Your task to perform on an android device: make emails show in primary in the gmail app Image 0: 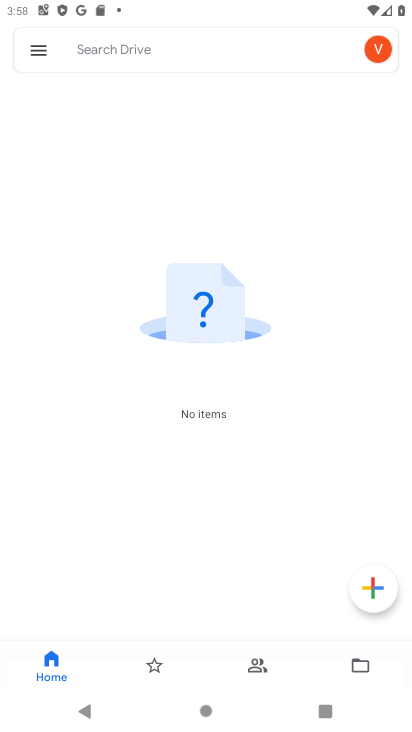
Step 0: press home button
Your task to perform on an android device: make emails show in primary in the gmail app Image 1: 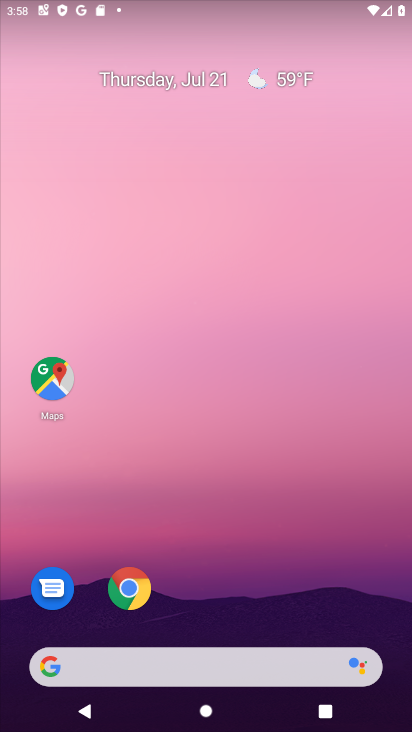
Step 1: drag from (247, 701) to (230, 189)
Your task to perform on an android device: make emails show in primary in the gmail app Image 2: 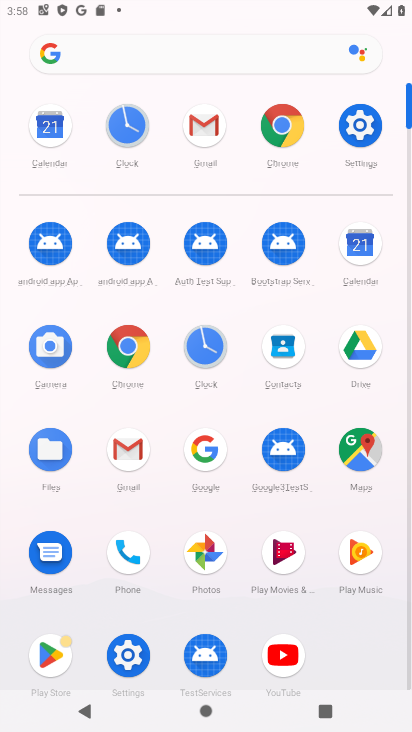
Step 2: click (123, 456)
Your task to perform on an android device: make emails show in primary in the gmail app Image 3: 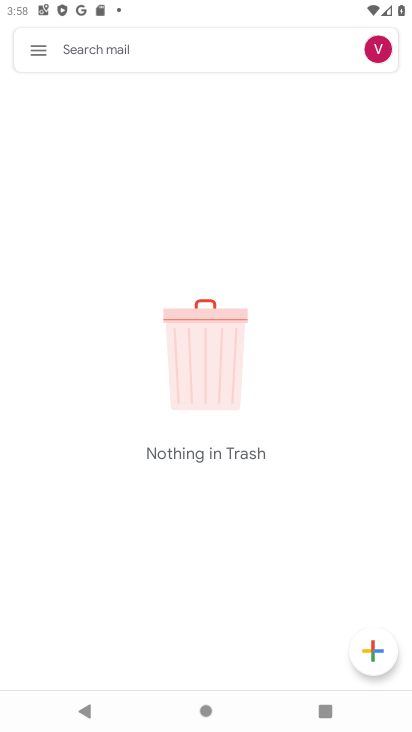
Step 3: click (42, 53)
Your task to perform on an android device: make emails show in primary in the gmail app Image 4: 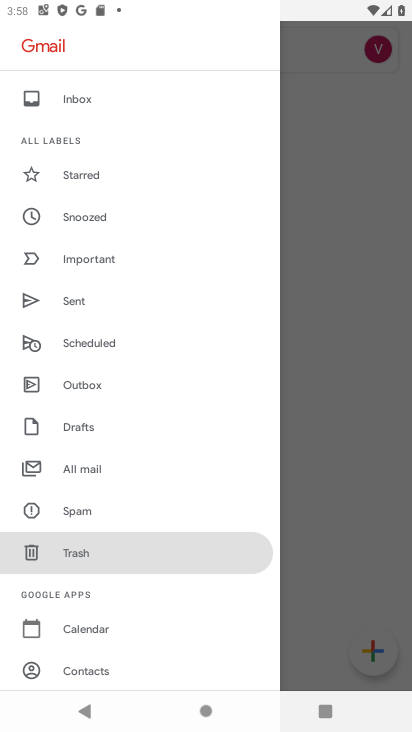
Step 4: drag from (127, 659) to (133, 297)
Your task to perform on an android device: make emails show in primary in the gmail app Image 5: 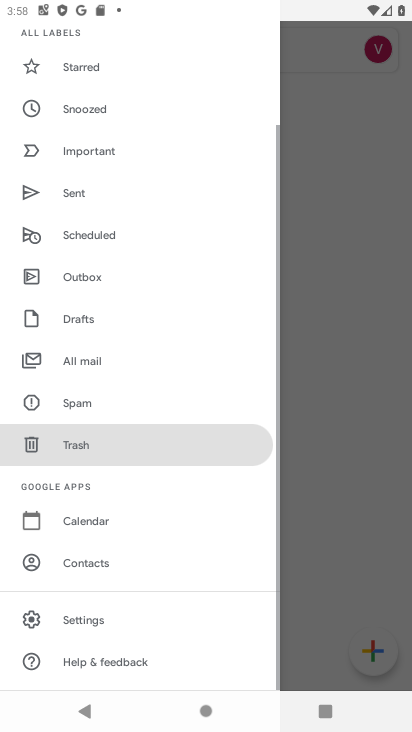
Step 5: click (81, 617)
Your task to perform on an android device: make emails show in primary in the gmail app Image 6: 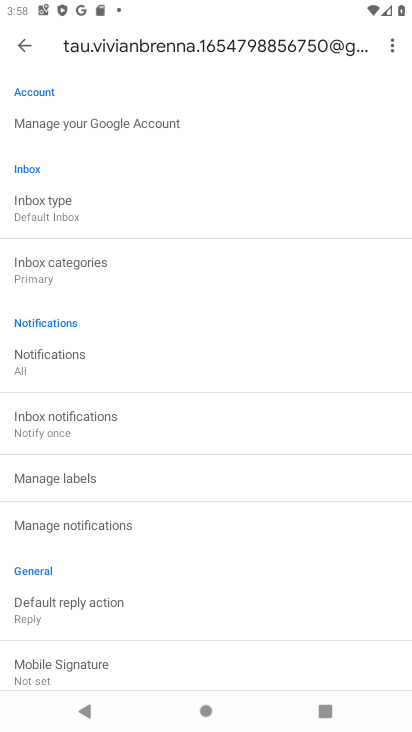
Step 6: task complete